Your task to perform on an android device: turn off notifications in google photos Image 0: 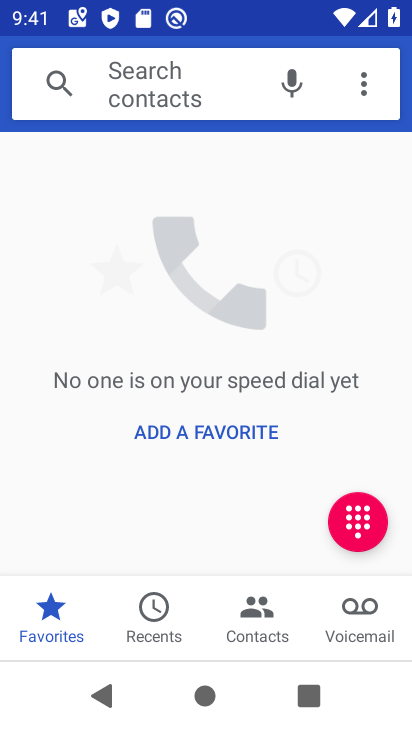
Step 0: press home button
Your task to perform on an android device: turn off notifications in google photos Image 1: 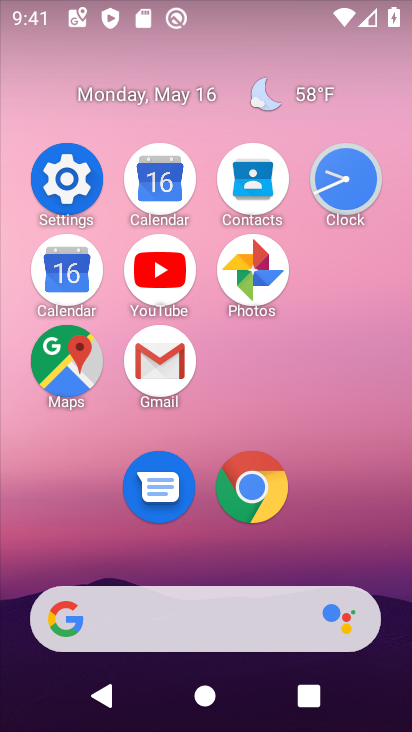
Step 1: click (268, 265)
Your task to perform on an android device: turn off notifications in google photos Image 2: 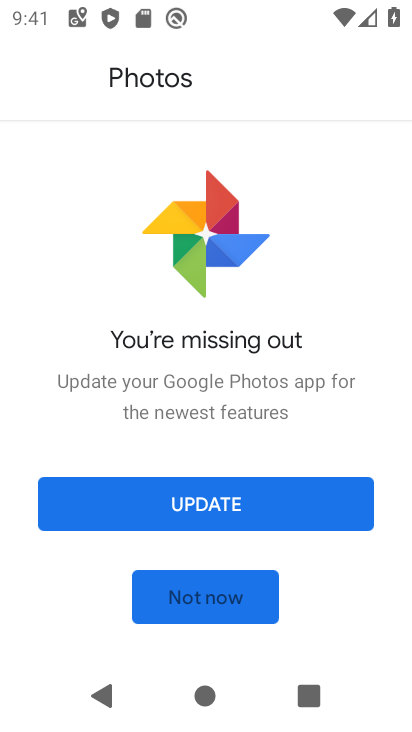
Step 2: click (267, 515)
Your task to perform on an android device: turn off notifications in google photos Image 3: 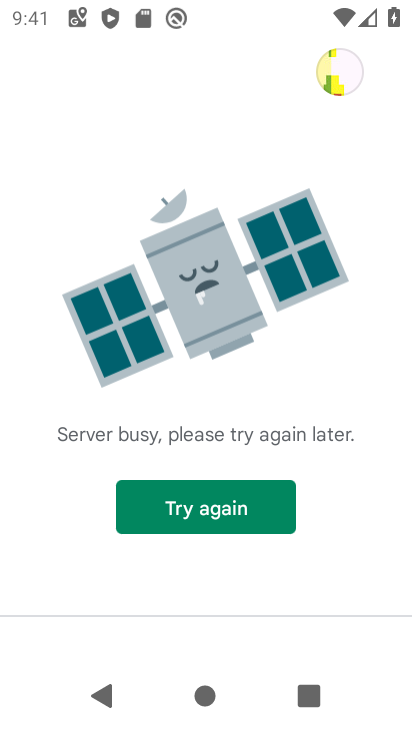
Step 3: click (236, 510)
Your task to perform on an android device: turn off notifications in google photos Image 4: 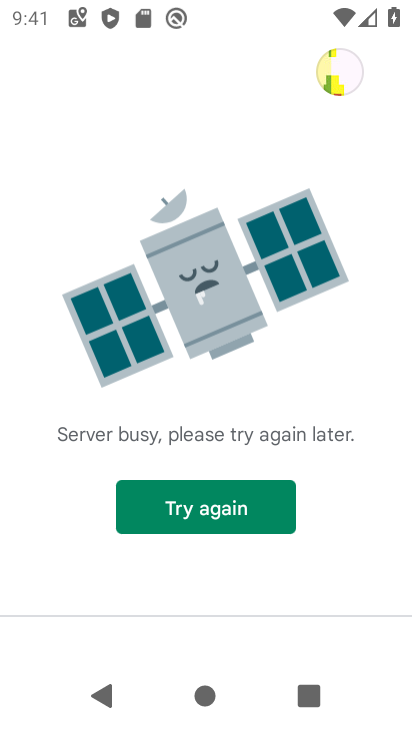
Step 4: task complete